Your task to perform on an android device: Open Wikipedia Image 0: 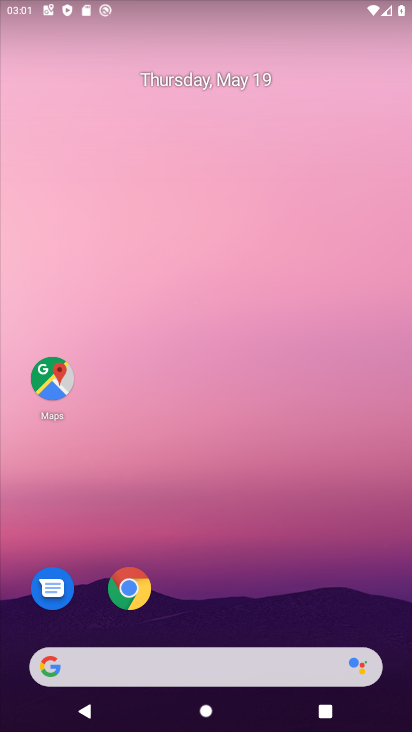
Step 0: click (131, 591)
Your task to perform on an android device: Open Wikipedia Image 1: 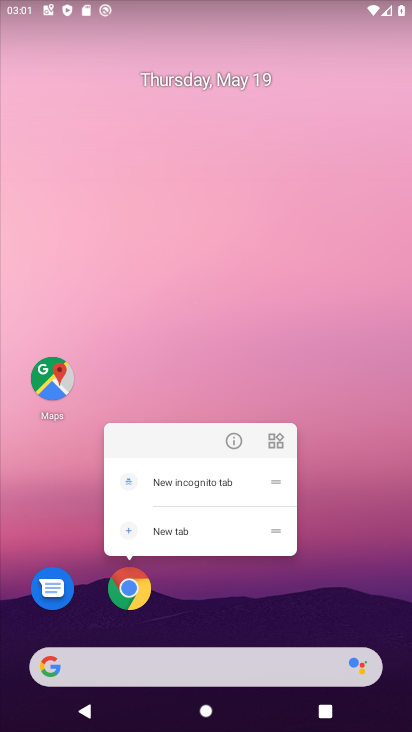
Step 1: click (131, 591)
Your task to perform on an android device: Open Wikipedia Image 2: 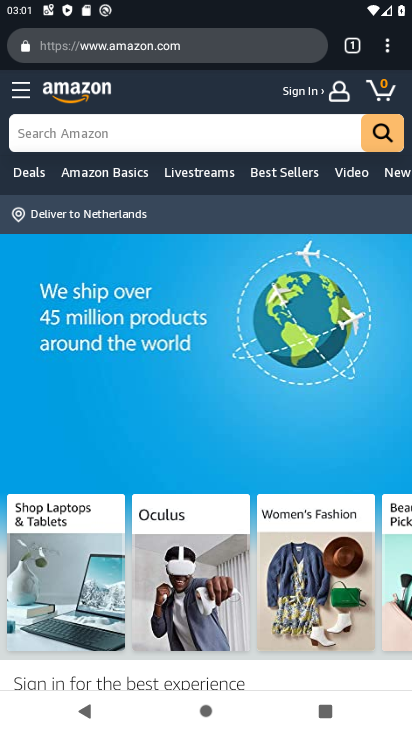
Step 2: press back button
Your task to perform on an android device: Open Wikipedia Image 3: 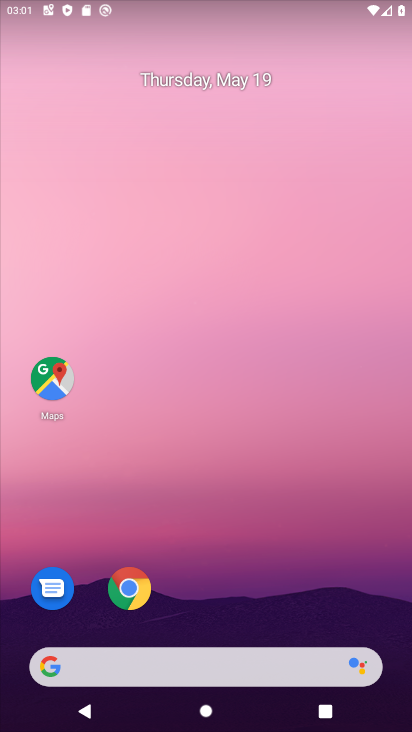
Step 3: click (134, 577)
Your task to perform on an android device: Open Wikipedia Image 4: 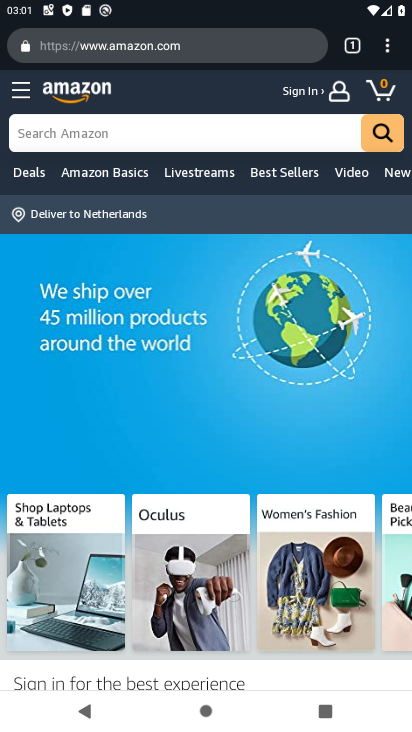
Step 4: click (247, 48)
Your task to perform on an android device: Open Wikipedia Image 5: 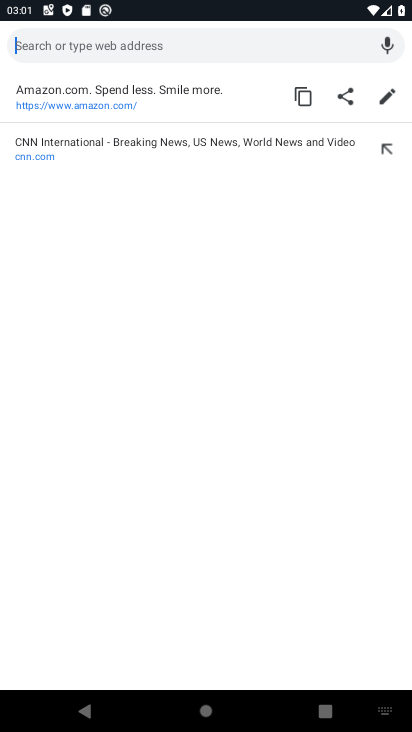
Step 5: type "wikiipedia"
Your task to perform on an android device: Open Wikipedia Image 6: 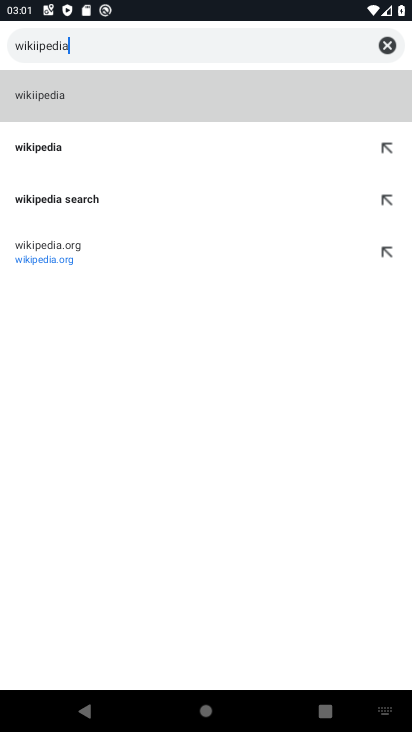
Step 6: click (93, 254)
Your task to perform on an android device: Open Wikipedia Image 7: 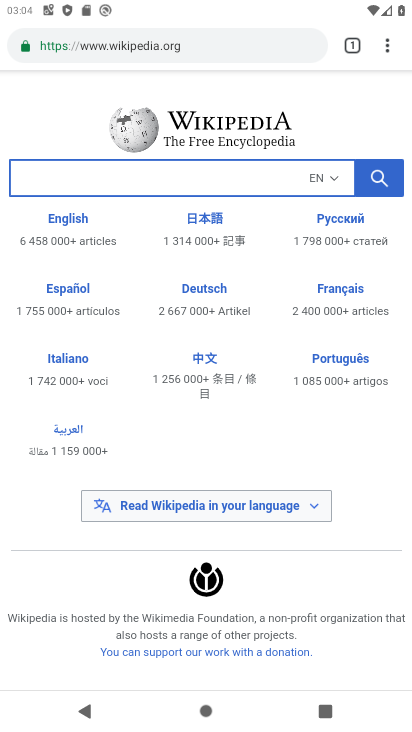
Step 7: task complete